Your task to perform on an android device: Find the nearest electronics store that's open today Image 0: 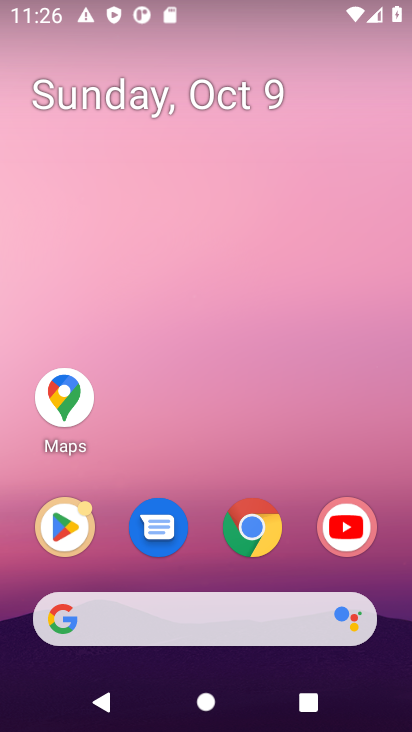
Step 0: click (58, 395)
Your task to perform on an android device: Find the nearest electronics store that's open today Image 1: 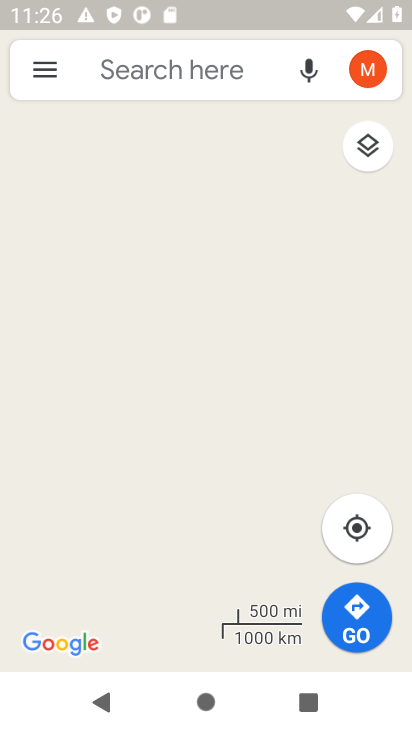
Step 1: click (185, 72)
Your task to perform on an android device: Find the nearest electronics store that's open today Image 2: 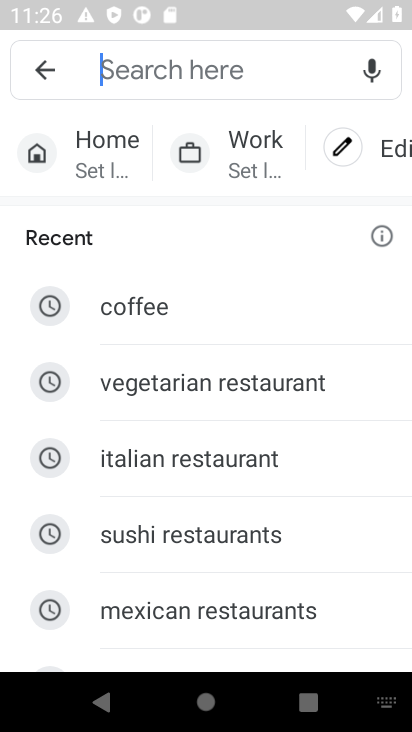
Step 2: type "nearest electronic store"
Your task to perform on an android device: Find the nearest electronics store that's open today Image 3: 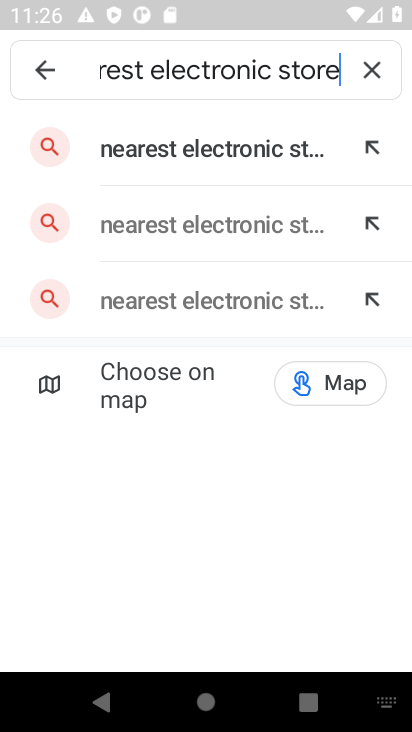
Step 3: click (169, 149)
Your task to perform on an android device: Find the nearest electronics store that's open today Image 4: 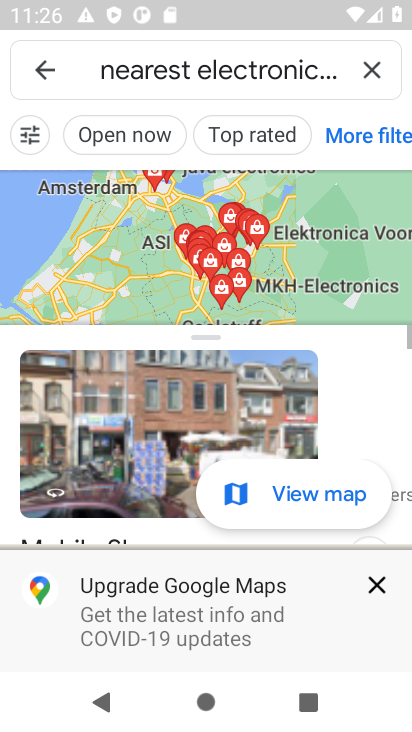
Step 4: click (379, 582)
Your task to perform on an android device: Find the nearest electronics store that's open today Image 5: 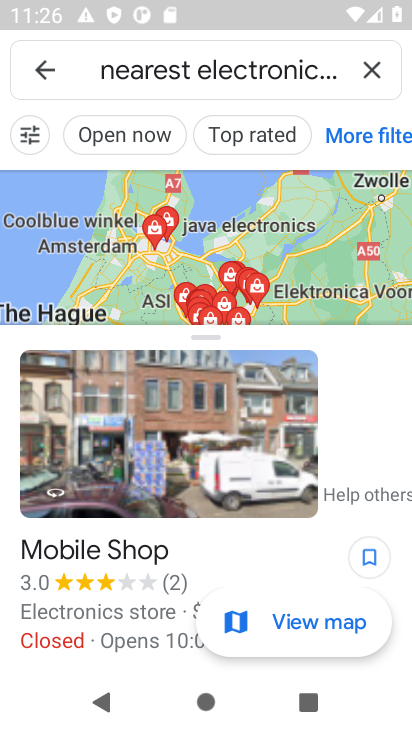
Step 5: task complete